Your task to perform on an android device: stop showing notifications on the lock screen Image 0: 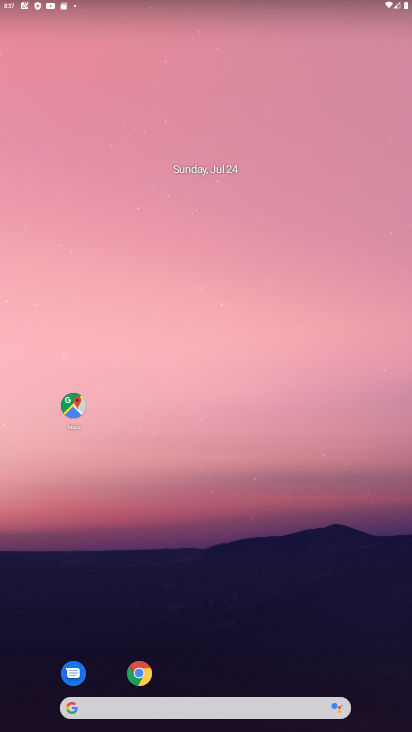
Step 0: drag from (185, 665) to (229, 79)
Your task to perform on an android device: stop showing notifications on the lock screen Image 1: 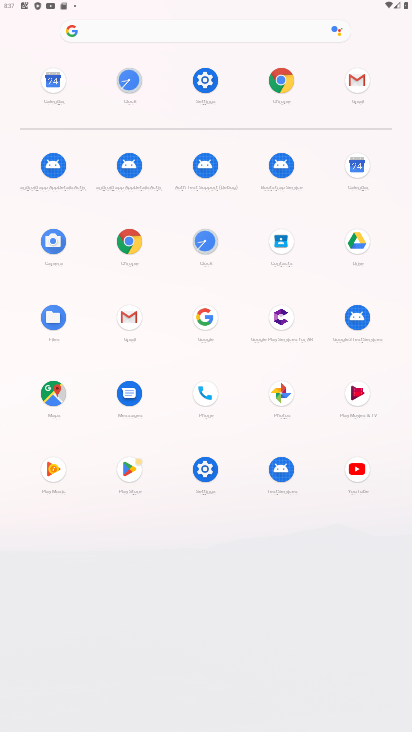
Step 1: click (204, 469)
Your task to perform on an android device: stop showing notifications on the lock screen Image 2: 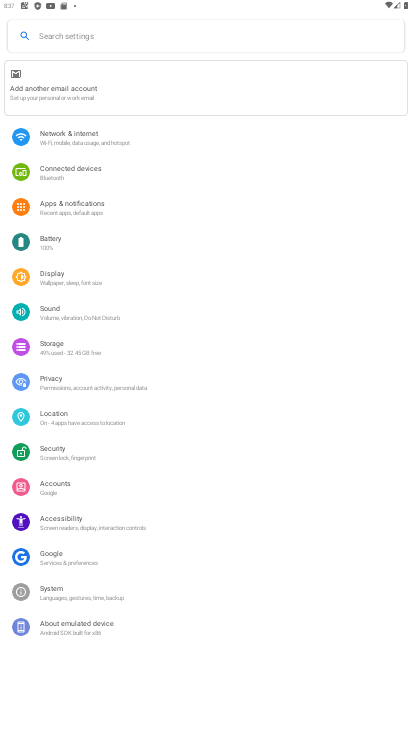
Step 2: click (41, 207)
Your task to perform on an android device: stop showing notifications on the lock screen Image 3: 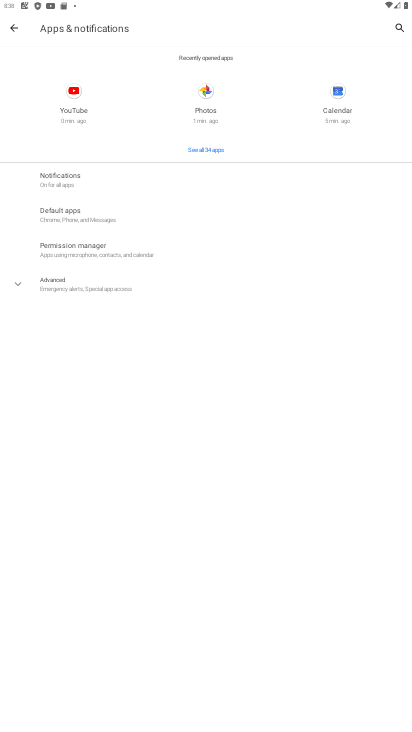
Step 3: click (59, 182)
Your task to perform on an android device: stop showing notifications on the lock screen Image 4: 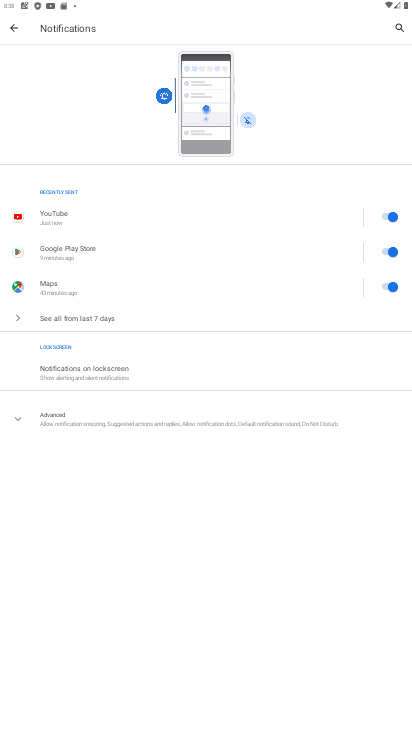
Step 4: click (54, 421)
Your task to perform on an android device: stop showing notifications on the lock screen Image 5: 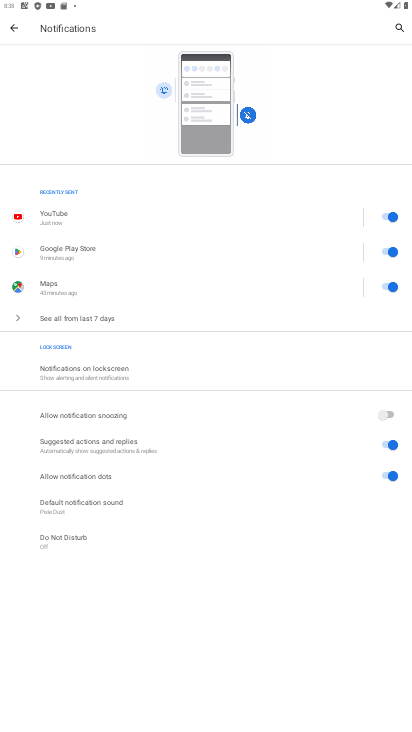
Step 5: click (74, 369)
Your task to perform on an android device: stop showing notifications on the lock screen Image 6: 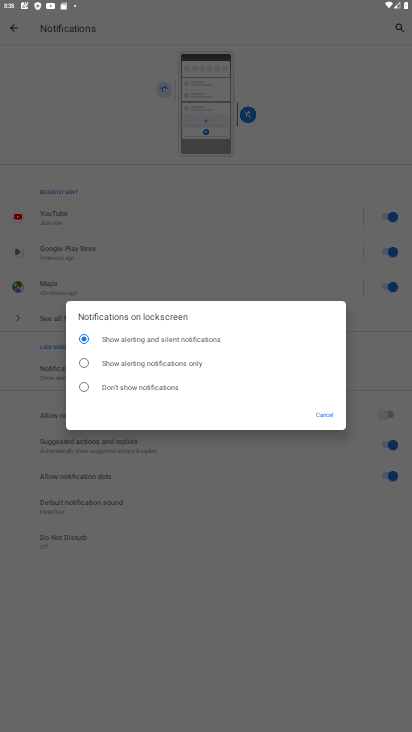
Step 6: click (75, 390)
Your task to perform on an android device: stop showing notifications on the lock screen Image 7: 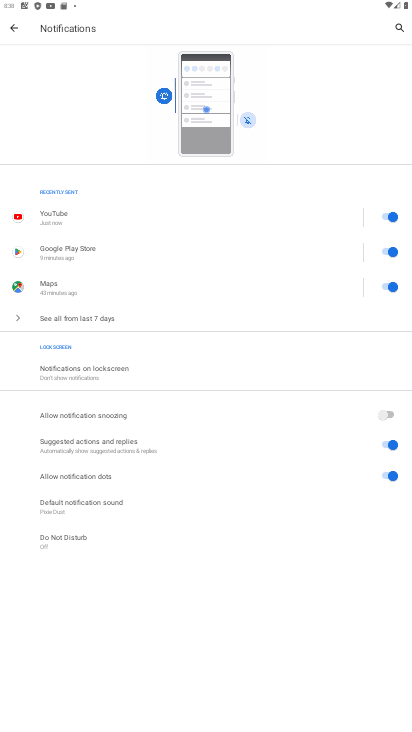
Step 7: task complete